Your task to perform on an android device: Do I have any events today? Image 0: 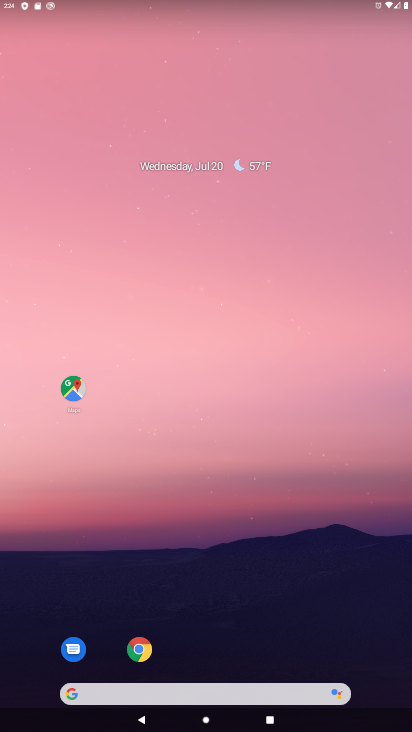
Step 0: click (158, 162)
Your task to perform on an android device: Do I have any events today? Image 1: 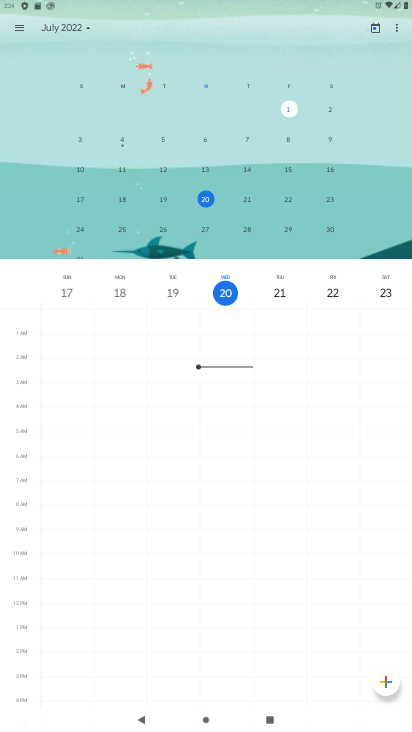
Step 1: click (22, 33)
Your task to perform on an android device: Do I have any events today? Image 2: 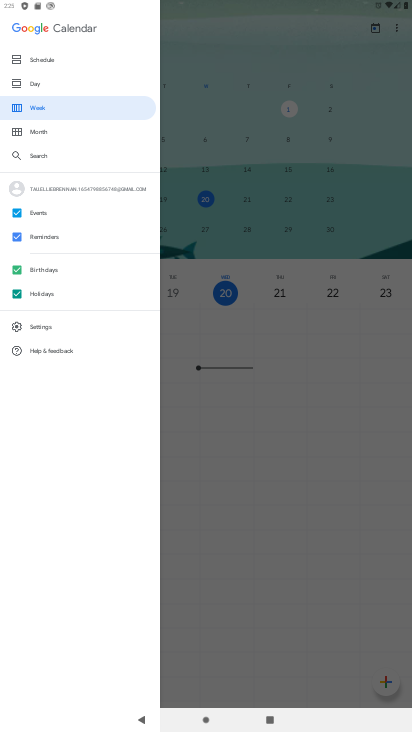
Step 2: click (21, 239)
Your task to perform on an android device: Do I have any events today? Image 3: 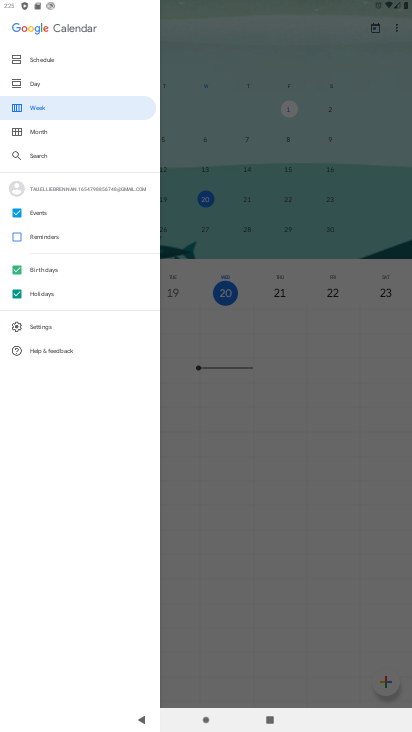
Step 3: click (16, 265)
Your task to perform on an android device: Do I have any events today? Image 4: 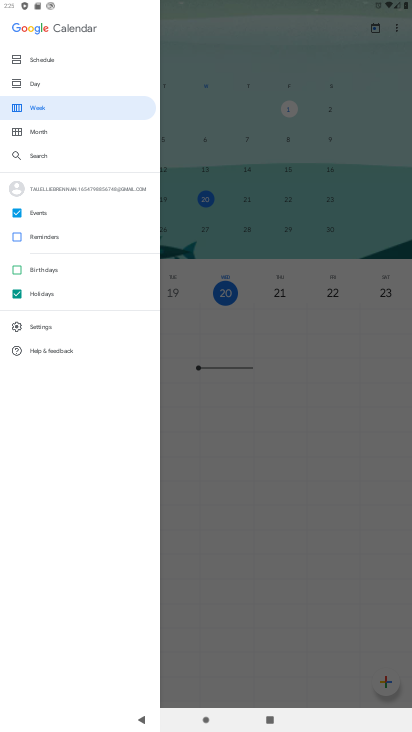
Step 4: click (18, 296)
Your task to perform on an android device: Do I have any events today? Image 5: 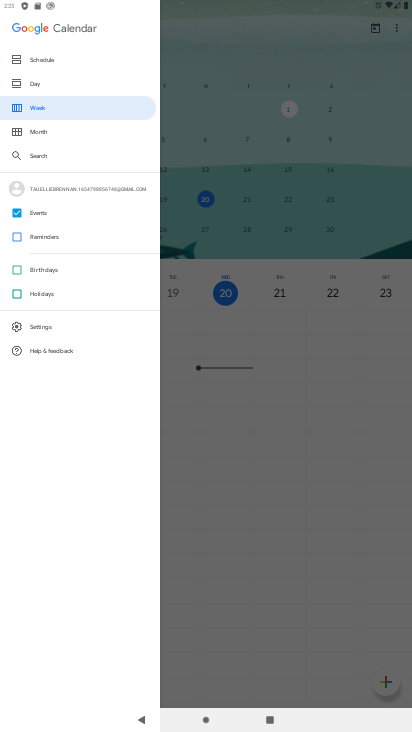
Step 5: click (58, 83)
Your task to perform on an android device: Do I have any events today? Image 6: 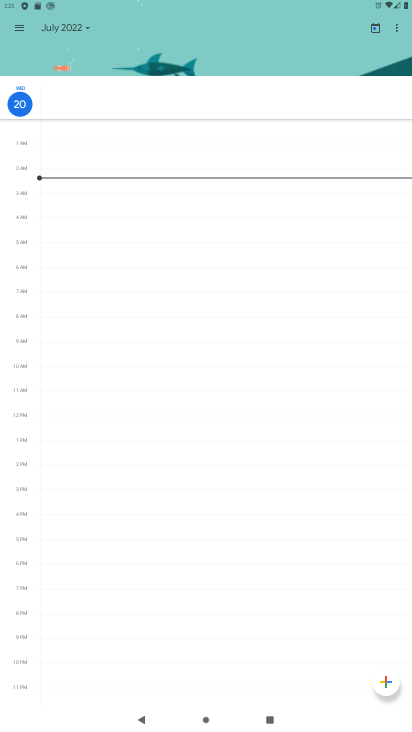
Step 6: task complete